Your task to perform on an android device: Open notification settings Image 0: 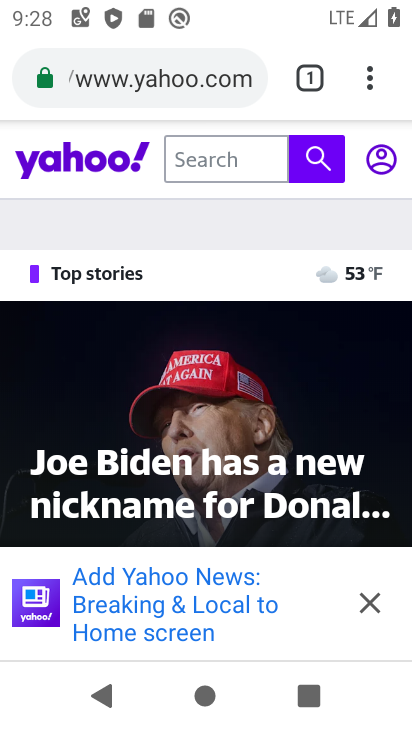
Step 0: press home button
Your task to perform on an android device: Open notification settings Image 1: 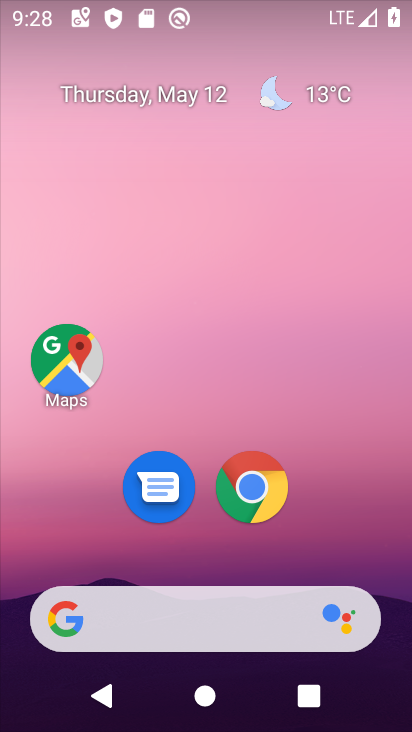
Step 1: drag from (358, 554) to (363, 36)
Your task to perform on an android device: Open notification settings Image 2: 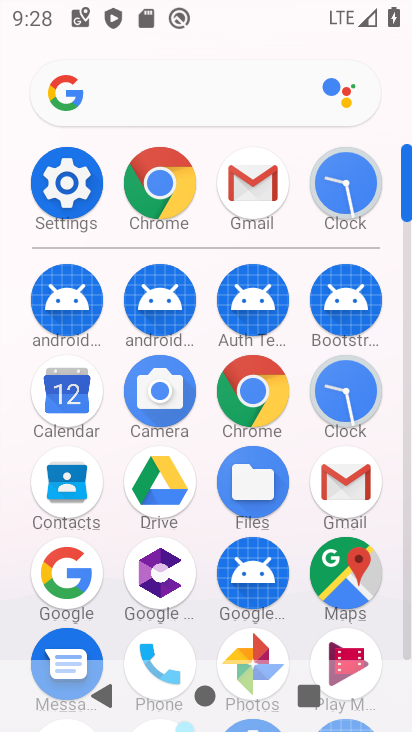
Step 2: click (72, 179)
Your task to perform on an android device: Open notification settings Image 3: 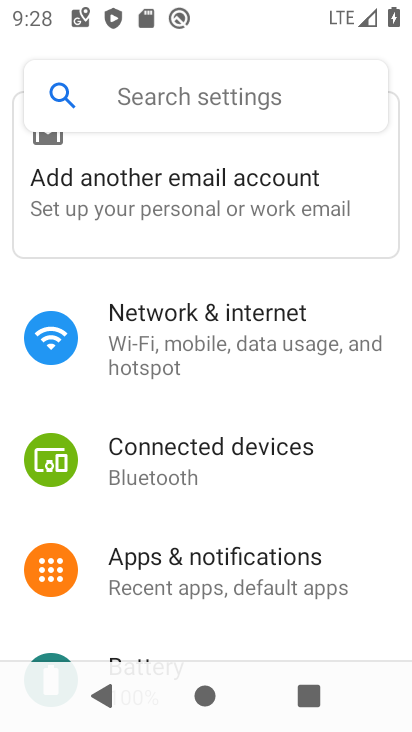
Step 3: click (287, 575)
Your task to perform on an android device: Open notification settings Image 4: 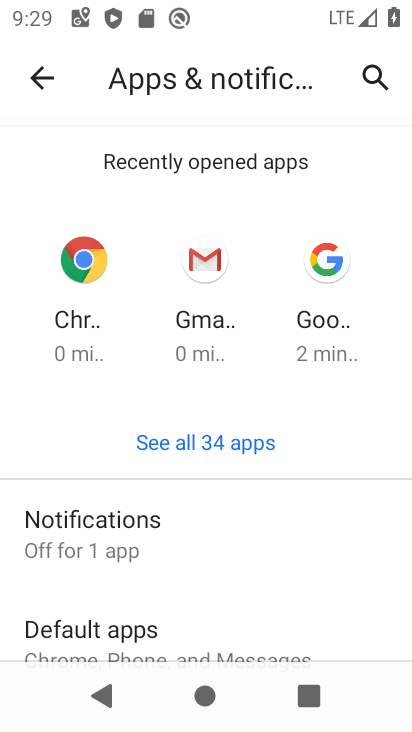
Step 4: task complete